Your task to perform on an android device: open sync settings in chrome Image 0: 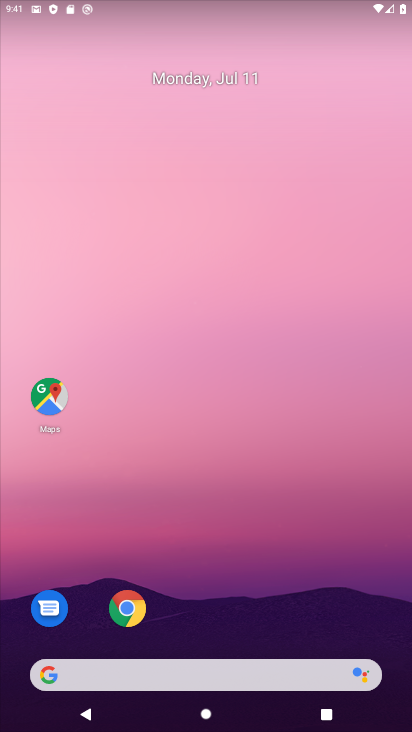
Step 0: drag from (210, 361) to (209, 318)
Your task to perform on an android device: open sync settings in chrome Image 1: 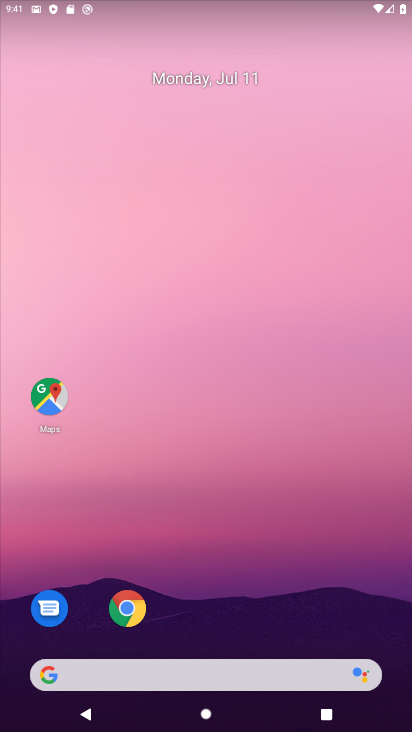
Step 1: drag from (251, 512) to (253, 131)
Your task to perform on an android device: open sync settings in chrome Image 2: 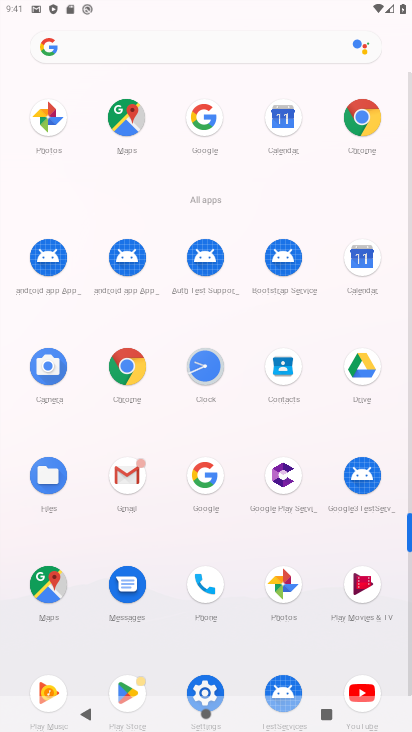
Step 2: click (125, 361)
Your task to perform on an android device: open sync settings in chrome Image 3: 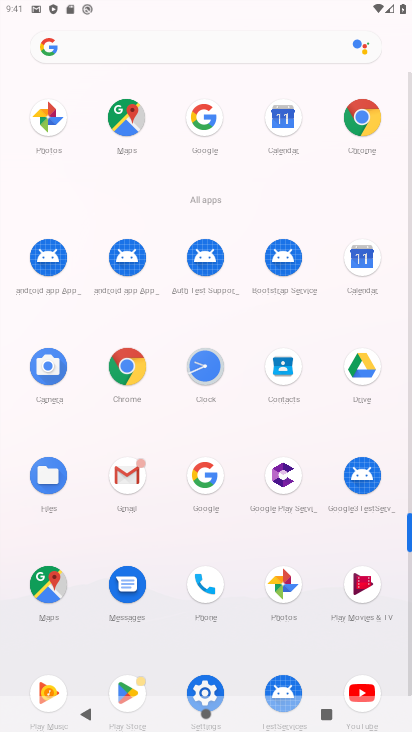
Step 3: click (122, 360)
Your task to perform on an android device: open sync settings in chrome Image 4: 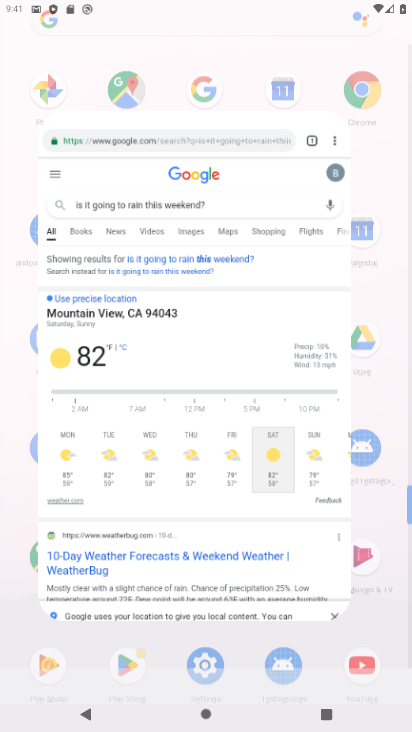
Step 4: click (122, 360)
Your task to perform on an android device: open sync settings in chrome Image 5: 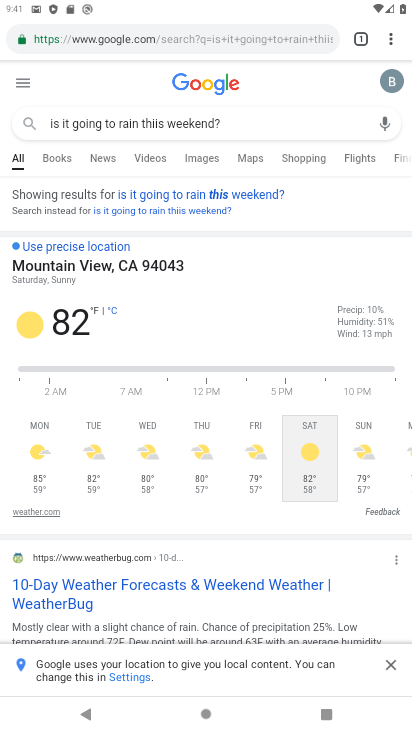
Step 5: task complete